Your task to perform on an android device: toggle wifi Image 0: 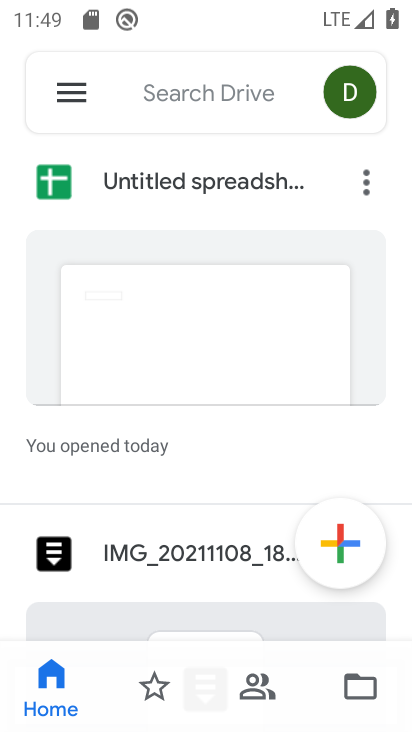
Step 0: press home button
Your task to perform on an android device: toggle wifi Image 1: 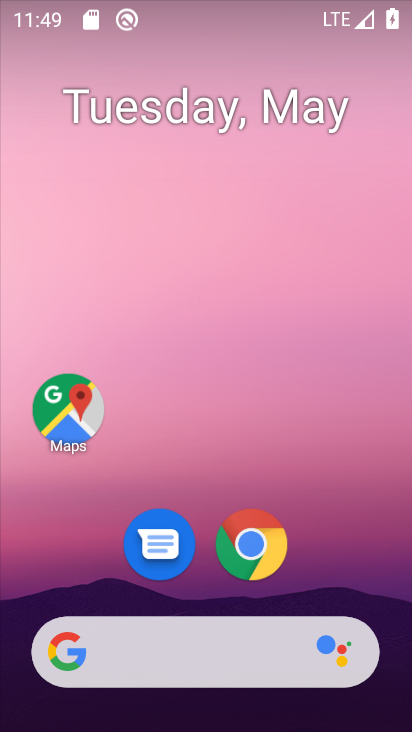
Step 1: drag from (157, 477) to (268, 84)
Your task to perform on an android device: toggle wifi Image 2: 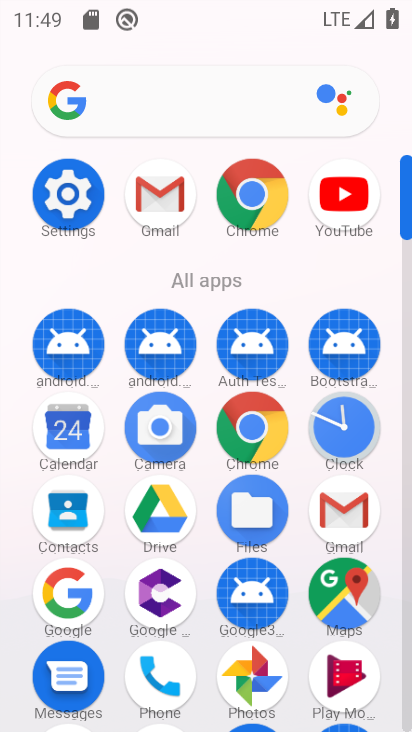
Step 2: click (80, 201)
Your task to perform on an android device: toggle wifi Image 3: 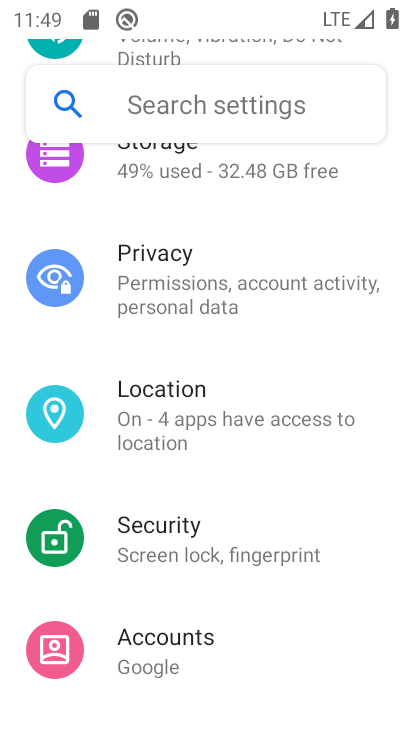
Step 3: press home button
Your task to perform on an android device: toggle wifi Image 4: 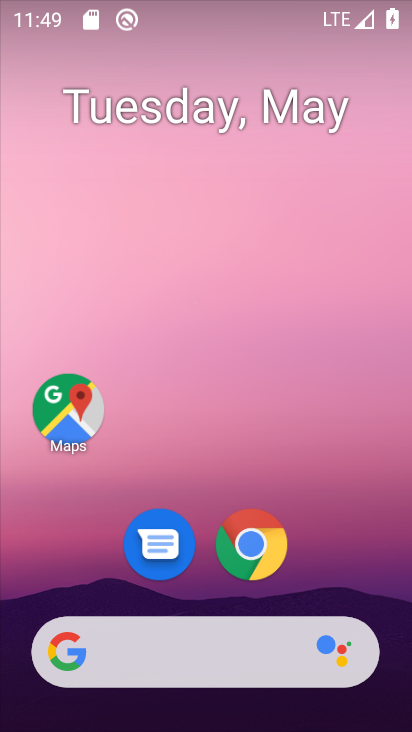
Step 4: drag from (234, 590) to (248, 269)
Your task to perform on an android device: toggle wifi Image 5: 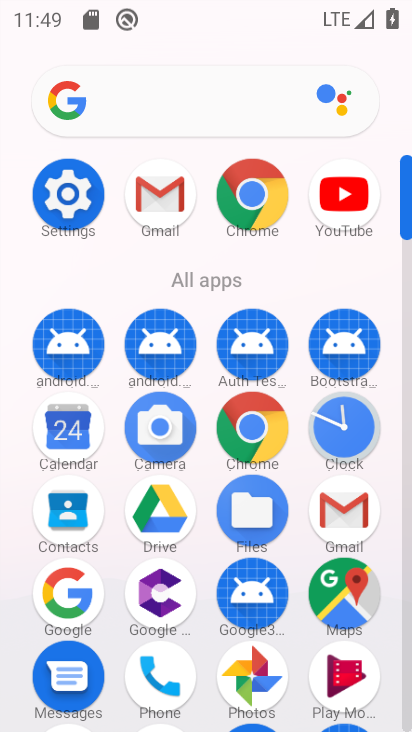
Step 5: click (64, 208)
Your task to perform on an android device: toggle wifi Image 6: 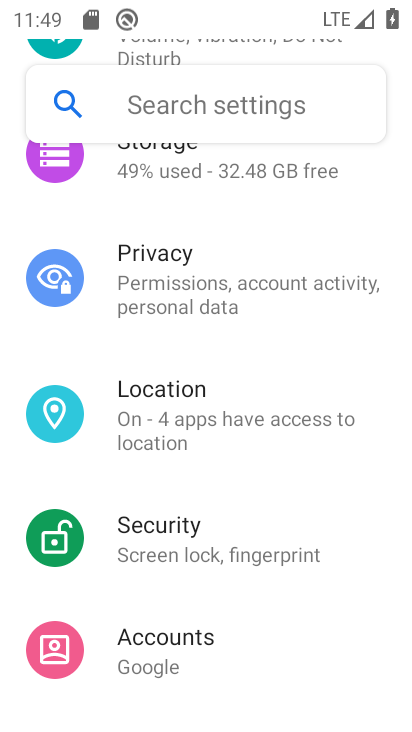
Step 6: drag from (142, 237) to (205, 679)
Your task to perform on an android device: toggle wifi Image 7: 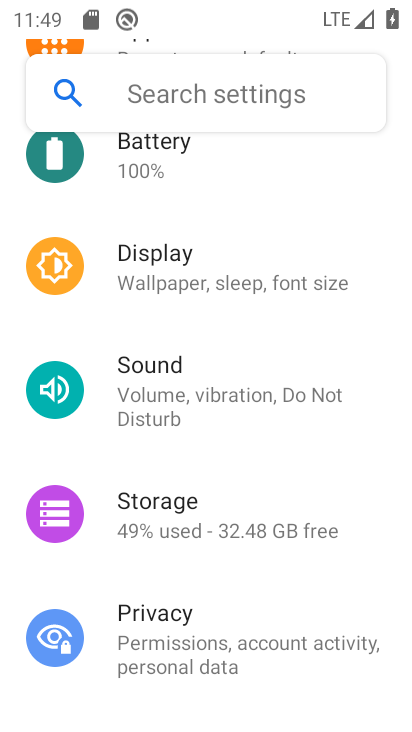
Step 7: drag from (214, 252) to (237, 641)
Your task to perform on an android device: toggle wifi Image 8: 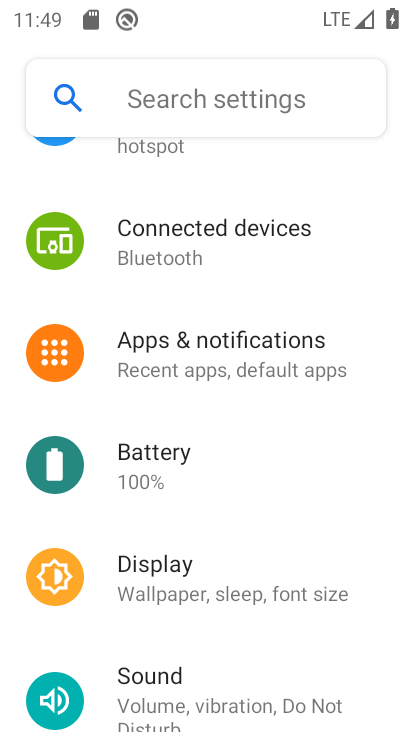
Step 8: drag from (246, 308) to (239, 671)
Your task to perform on an android device: toggle wifi Image 9: 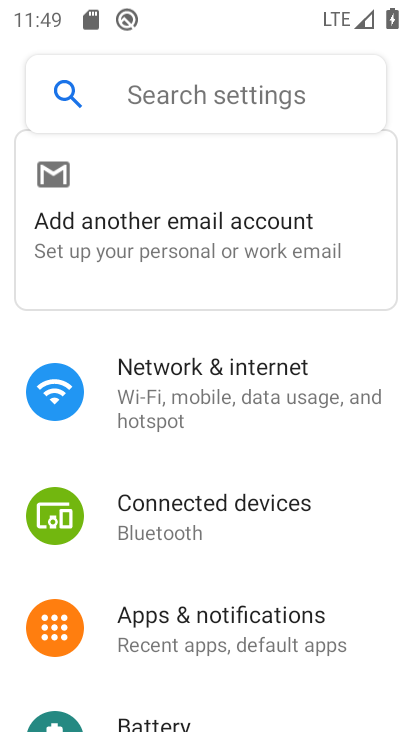
Step 9: click (226, 404)
Your task to perform on an android device: toggle wifi Image 10: 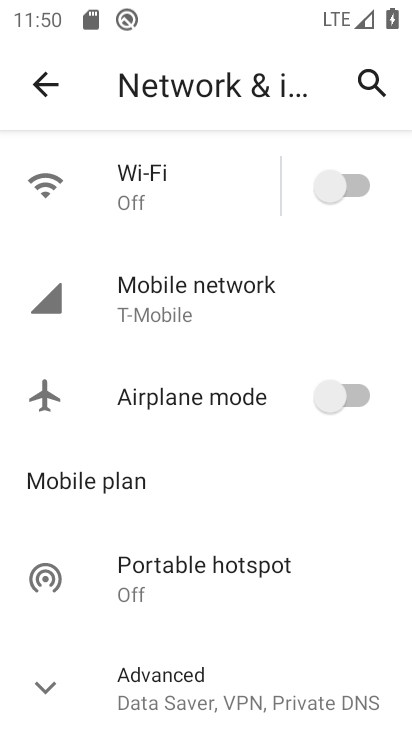
Step 10: click (335, 183)
Your task to perform on an android device: toggle wifi Image 11: 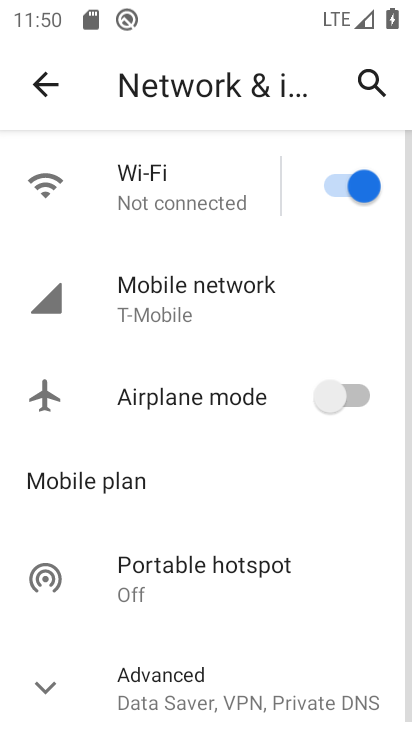
Step 11: task complete